Your task to perform on an android device: Go to location settings Image 0: 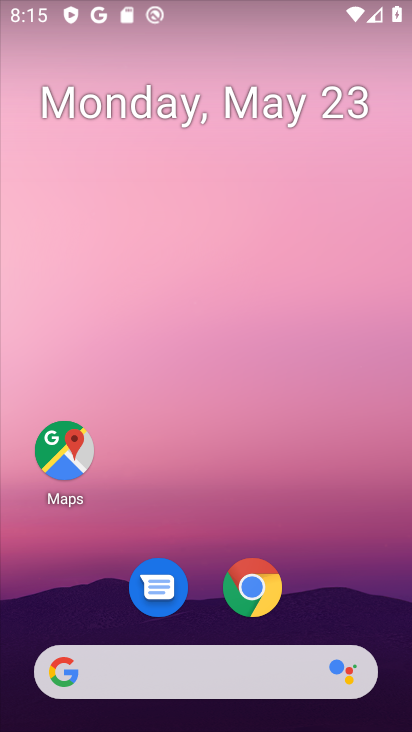
Step 0: drag from (194, 619) to (238, 58)
Your task to perform on an android device: Go to location settings Image 1: 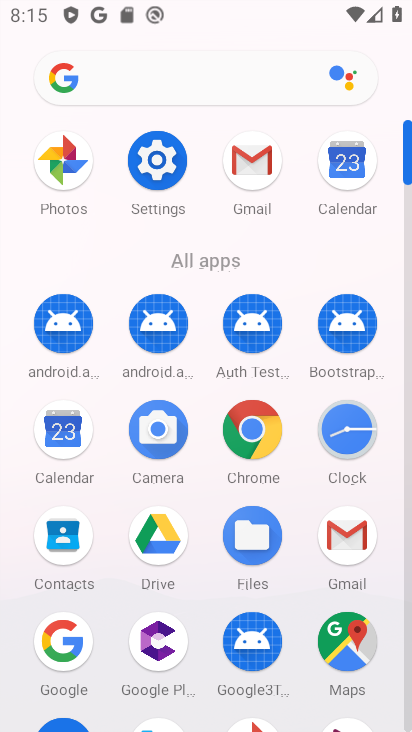
Step 1: click (157, 164)
Your task to perform on an android device: Go to location settings Image 2: 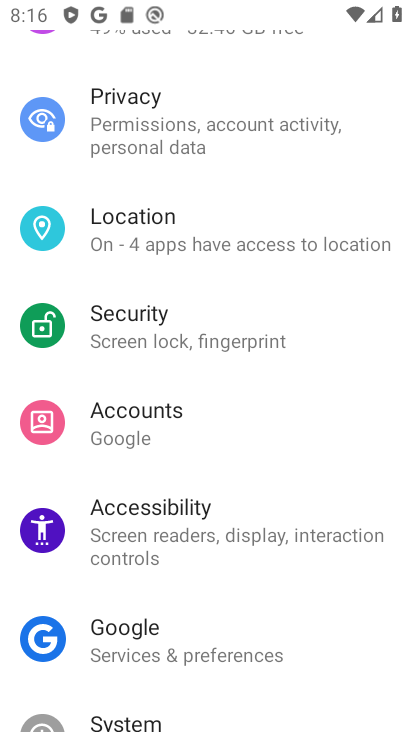
Step 2: click (178, 214)
Your task to perform on an android device: Go to location settings Image 3: 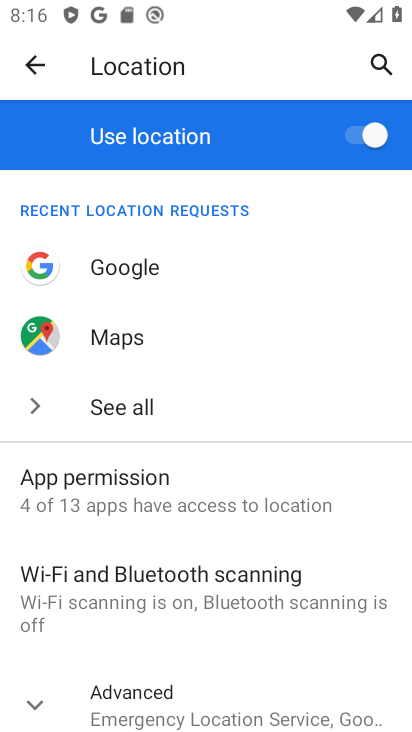
Step 3: task complete